Your task to perform on an android device: turn vacation reply on in the gmail app Image 0: 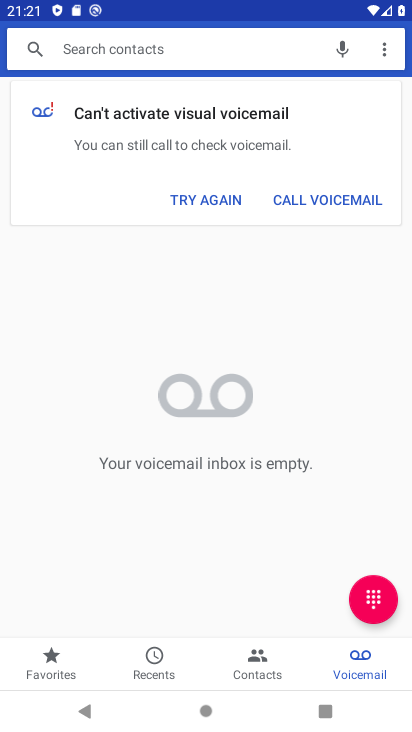
Step 0: press home button
Your task to perform on an android device: turn vacation reply on in the gmail app Image 1: 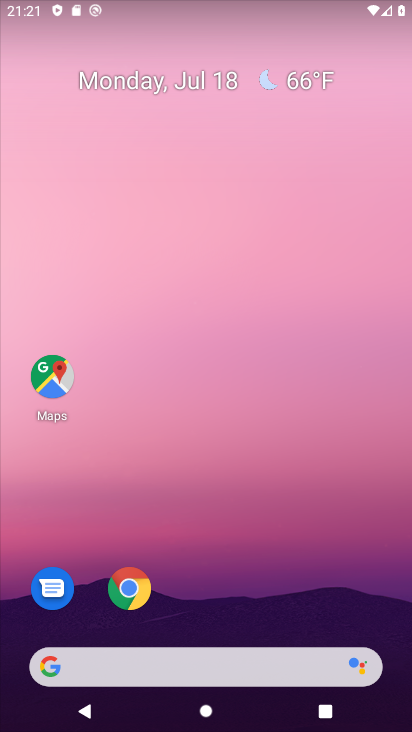
Step 1: drag from (356, 537) to (411, 339)
Your task to perform on an android device: turn vacation reply on in the gmail app Image 2: 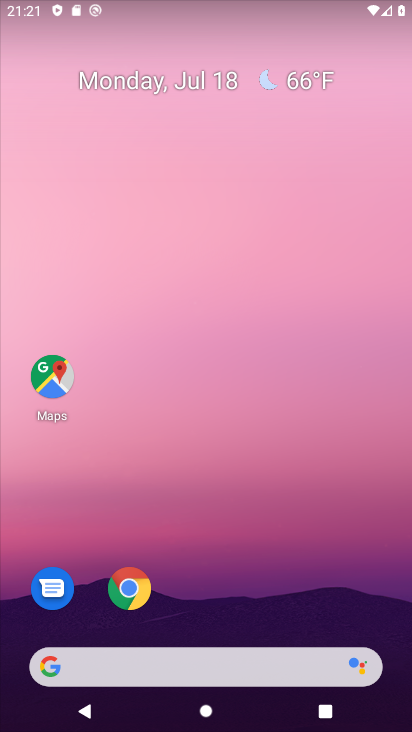
Step 2: drag from (262, 554) to (384, 8)
Your task to perform on an android device: turn vacation reply on in the gmail app Image 3: 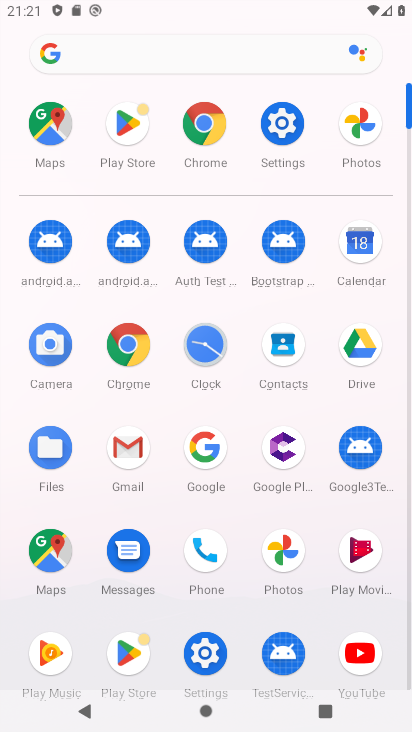
Step 3: click (117, 475)
Your task to perform on an android device: turn vacation reply on in the gmail app Image 4: 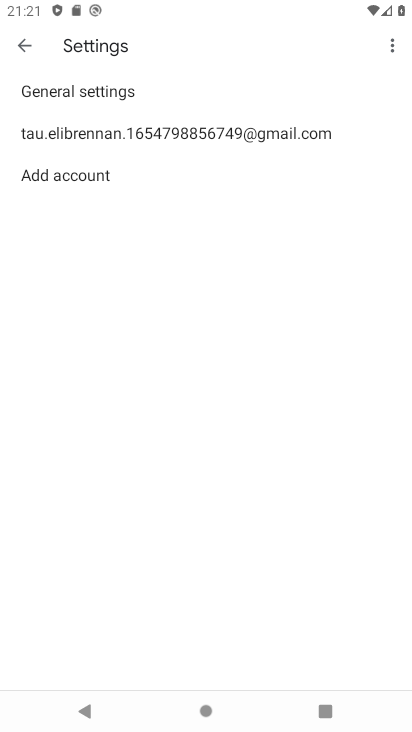
Step 4: click (146, 128)
Your task to perform on an android device: turn vacation reply on in the gmail app Image 5: 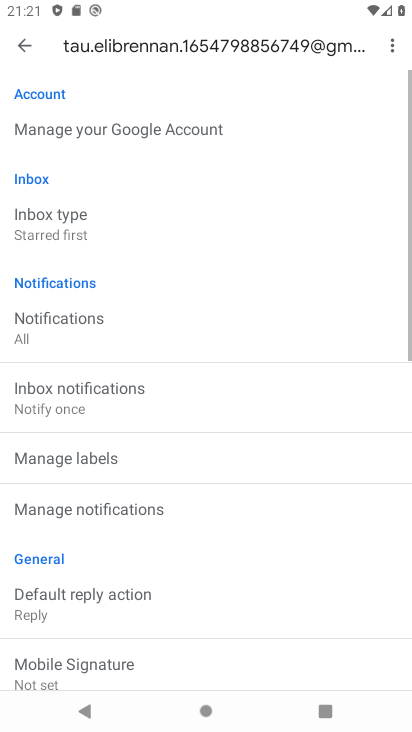
Step 5: drag from (62, 633) to (132, 99)
Your task to perform on an android device: turn vacation reply on in the gmail app Image 6: 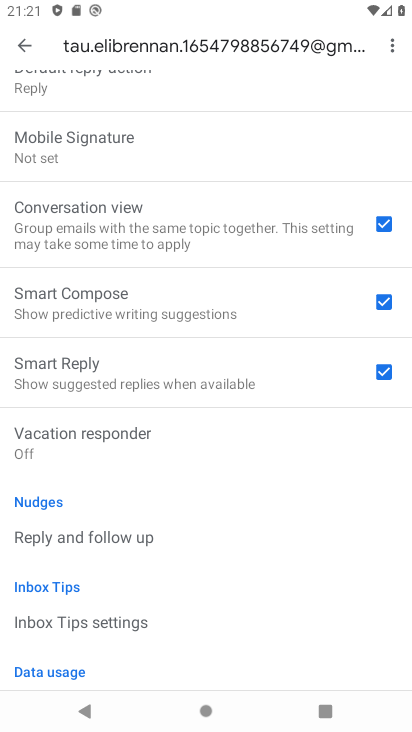
Step 6: click (123, 451)
Your task to perform on an android device: turn vacation reply on in the gmail app Image 7: 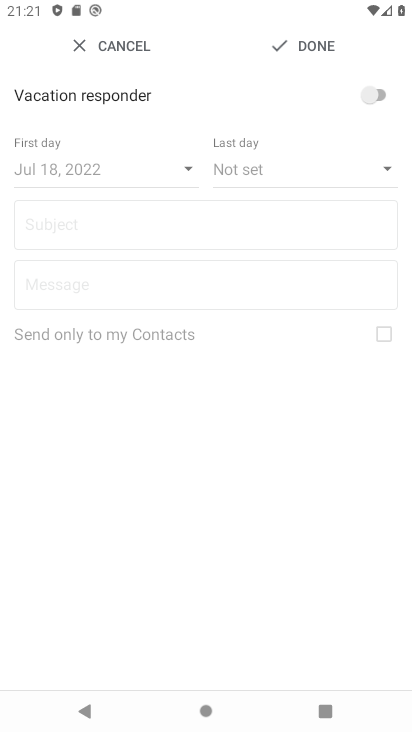
Step 7: click (347, 116)
Your task to perform on an android device: turn vacation reply on in the gmail app Image 8: 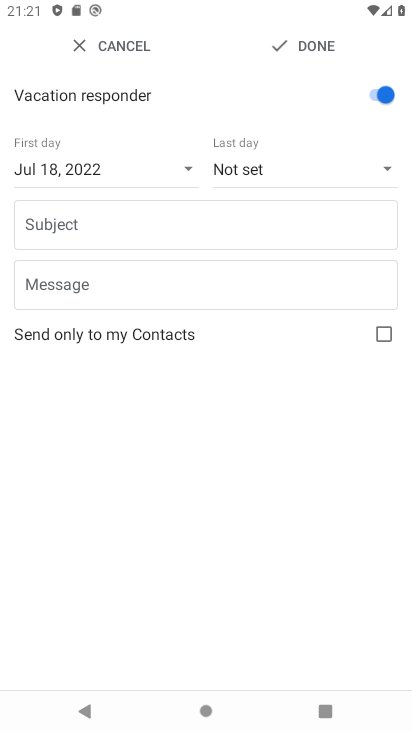
Step 8: click (66, 170)
Your task to perform on an android device: turn vacation reply on in the gmail app Image 9: 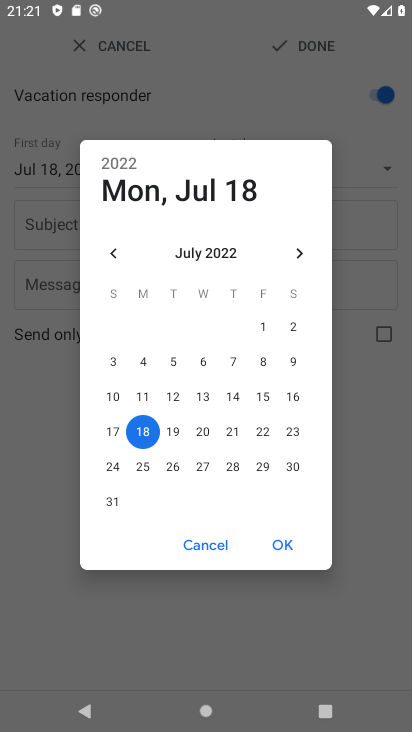
Step 9: click (185, 428)
Your task to perform on an android device: turn vacation reply on in the gmail app Image 10: 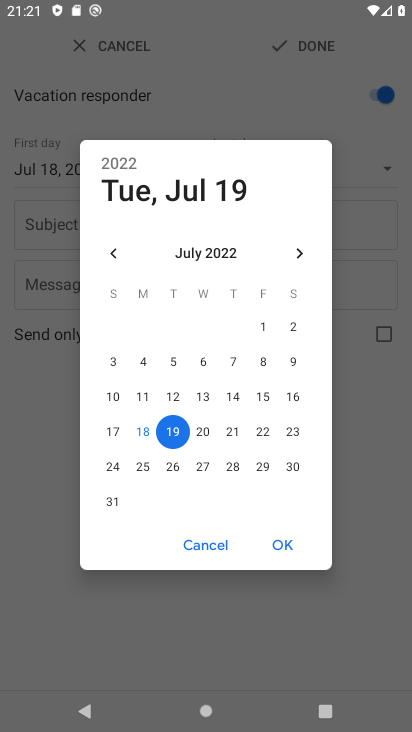
Step 10: click (297, 539)
Your task to perform on an android device: turn vacation reply on in the gmail app Image 11: 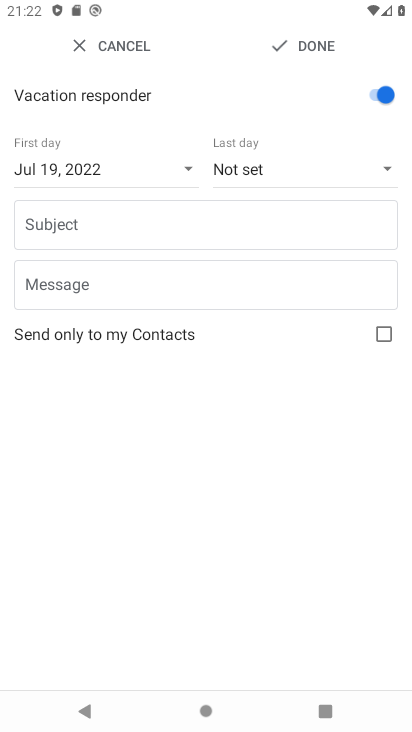
Step 11: click (139, 236)
Your task to perform on an android device: turn vacation reply on in the gmail app Image 12: 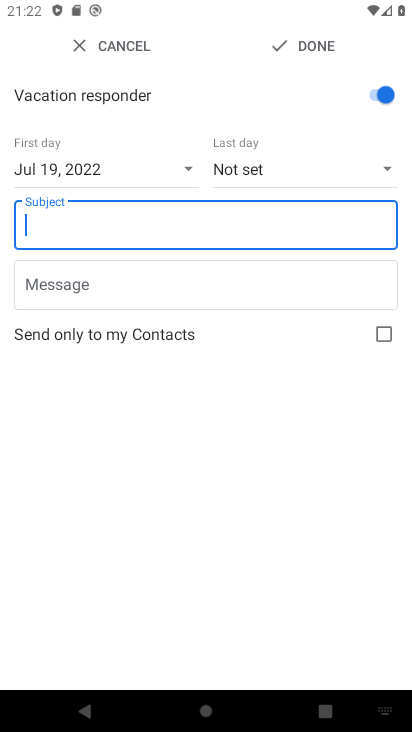
Step 12: type "DDFhn mmnb"
Your task to perform on an android device: turn vacation reply on in the gmail app Image 13: 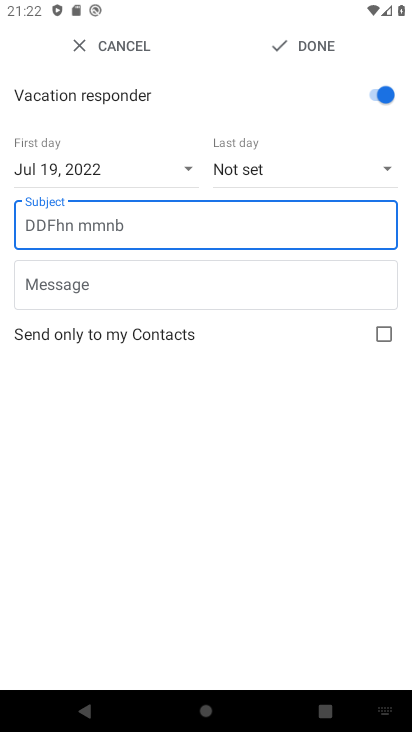
Step 13: click (306, 273)
Your task to perform on an android device: turn vacation reply on in the gmail app Image 14: 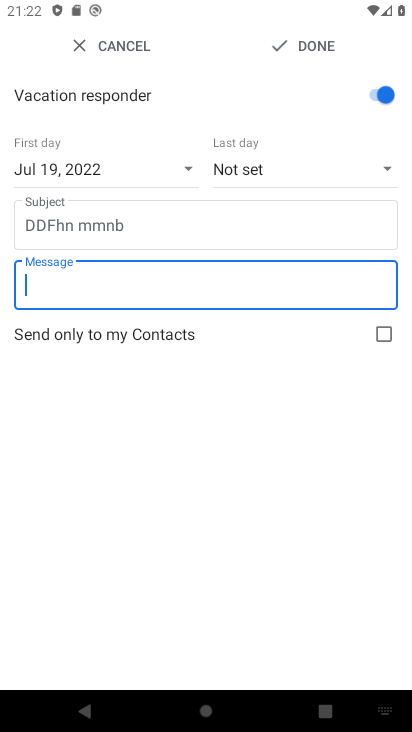
Step 14: type "sssssssssssssssssVBdffefrghbvvgsfuuo"
Your task to perform on an android device: turn vacation reply on in the gmail app Image 15: 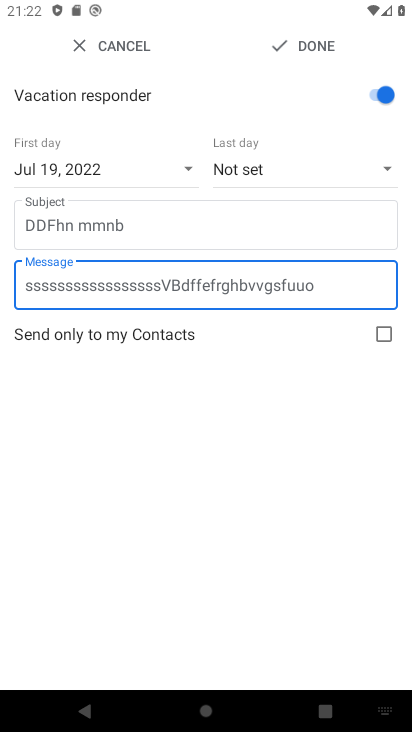
Step 15: click (392, 156)
Your task to perform on an android device: turn vacation reply on in the gmail app Image 16: 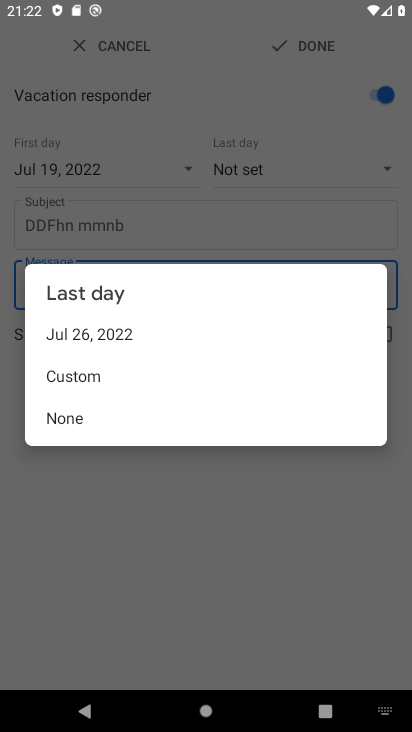
Step 16: click (85, 341)
Your task to perform on an android device: turn vacation reply on in the gmail app Image 17: 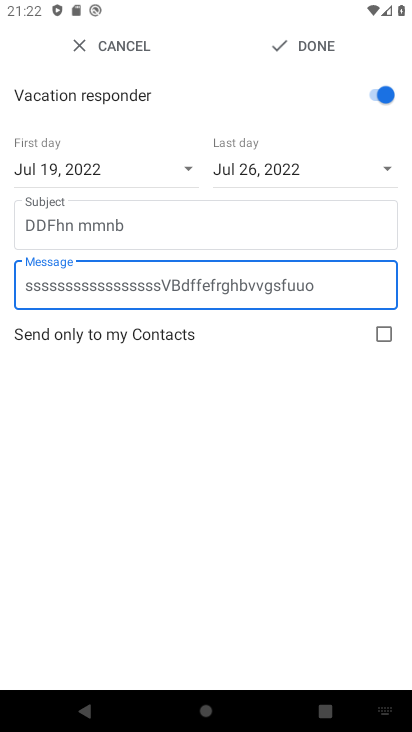
Step 17: click (326, 38)
Your task to perform on an android device: turn vacation reply on in the gmail app Image 18: 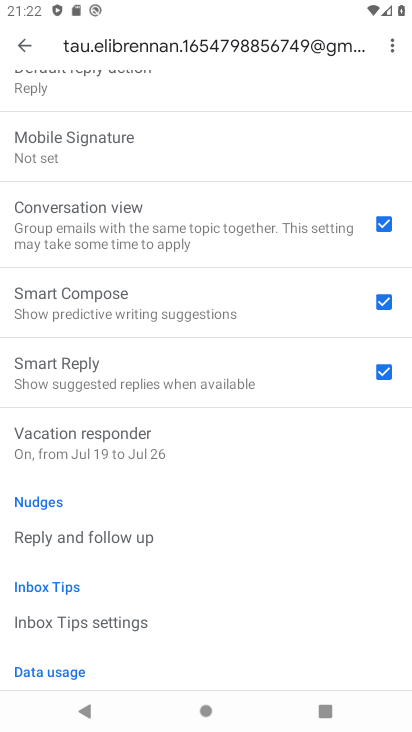
Step 18: task complete